Your task to perform on an android device: toggle airplane mode Image 0: 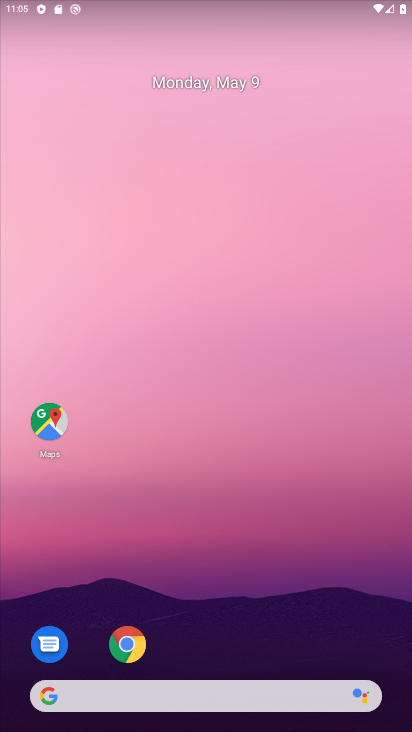
Step 0: drag from (226, 636) to (159, 100)
Your task to perform on an android device: toggle airplane mode Image 1: 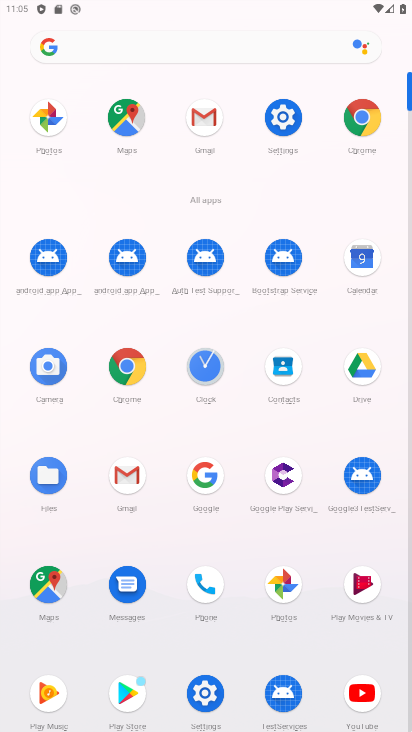
Step 1: click (273, 126)
Your task to perform on an android device: toggle airplane mode Image 2: 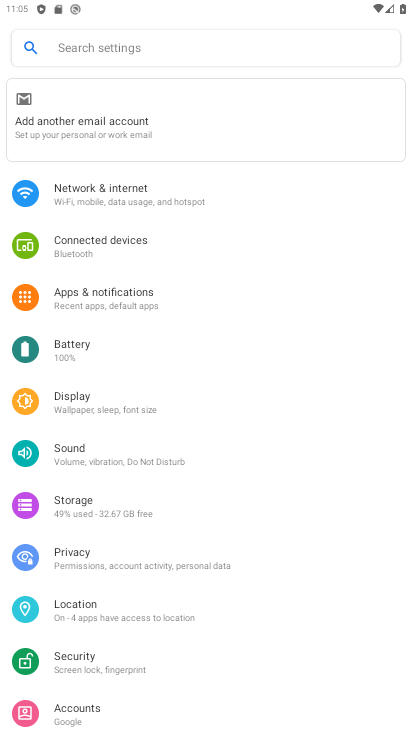
Step 2: click (164, 184)
Your task to perform on an android device: toggle airplane mode Image 3: 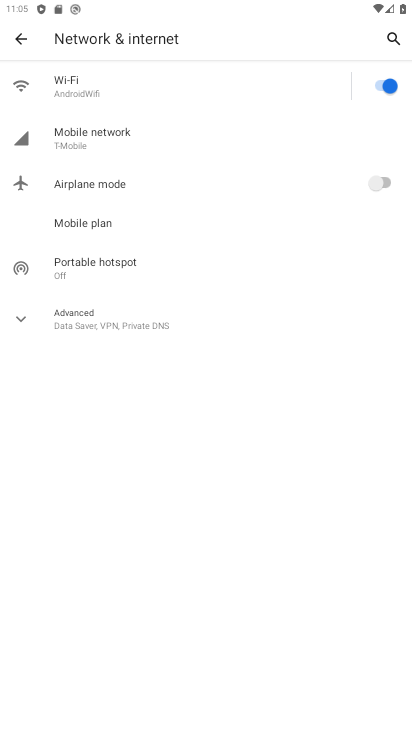
Step 3: click (385, 176)
Your task to perform on an android device: toggle airplane mode Image 4: 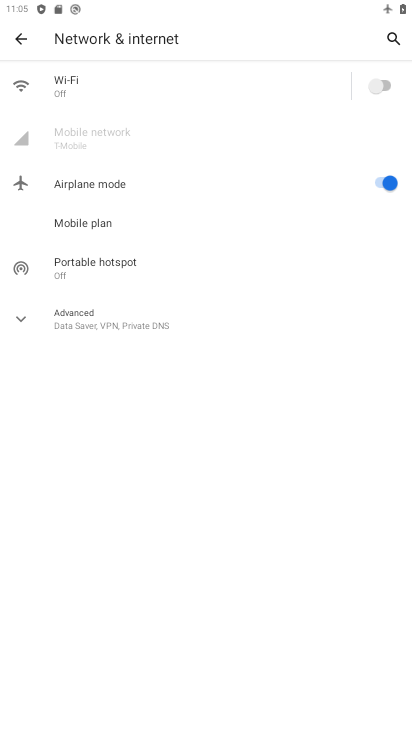
Step 4: task complete